Your task to perform on an android device: Open my contact list Image 0: 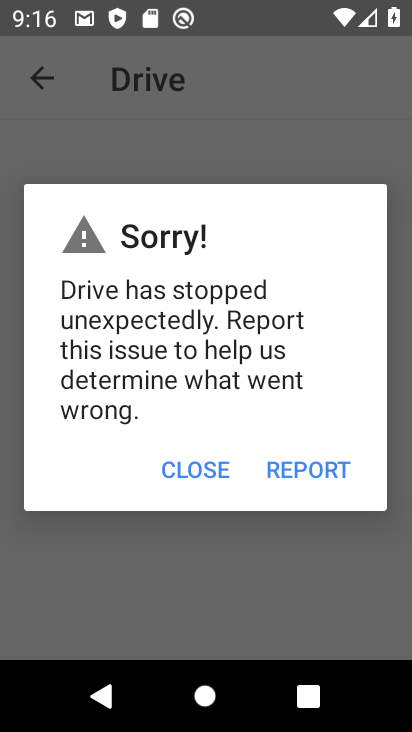
Step 0: click (195, 473)
Your task to perform on an android device: Open my contact list Image 1: 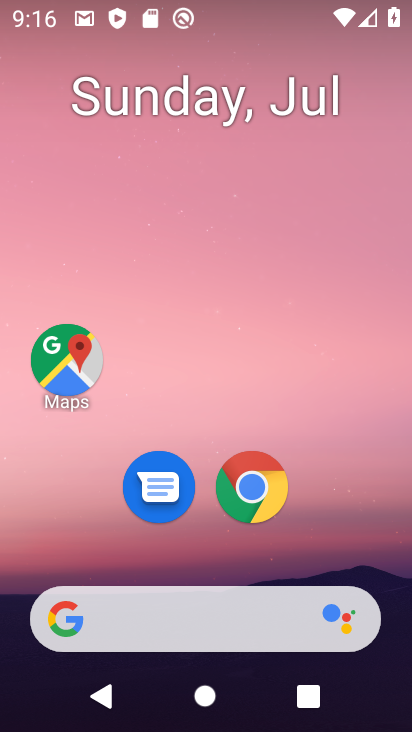
Step 1: drag from (256, 574) to (297, 34)
Your task to perform on an android device: Open my contact list Image 2: 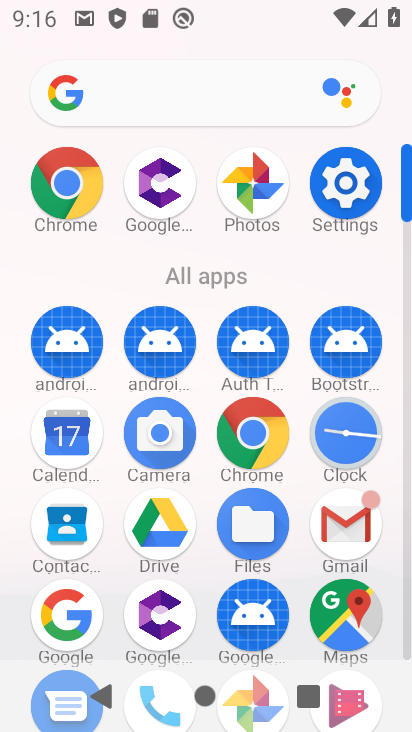
Step 2: click (53, 532)
Your task to perform on an android device: Open my contact list Image 3: 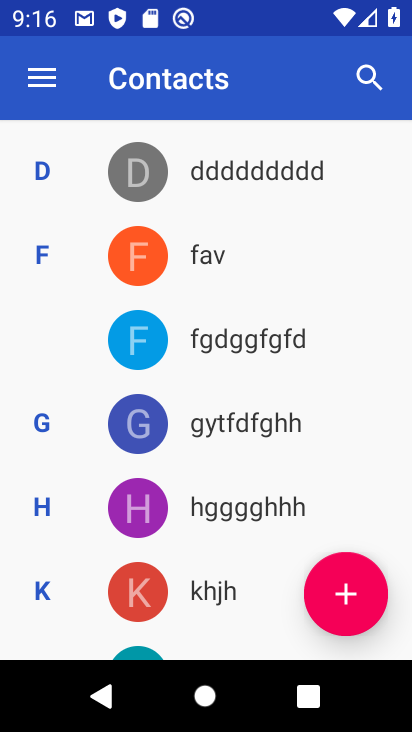
Step 3: task complete